Your task to perform on an android device: choose inbox layout in the gmail app Image 0: 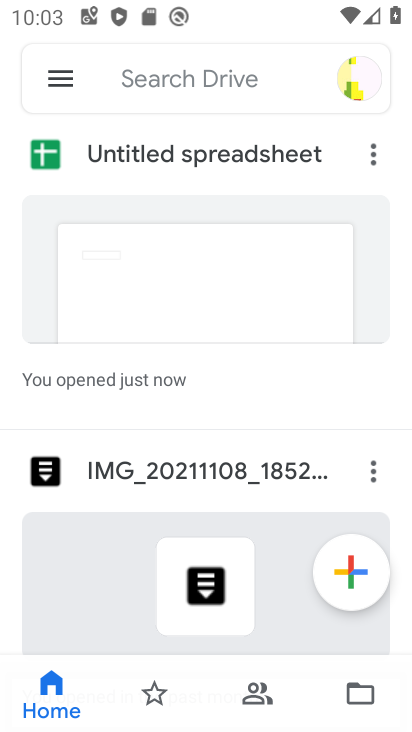
Step 0: click (50, 72)
Your task to perform on an android device: choose inbox layout in the gmail app Image 1: 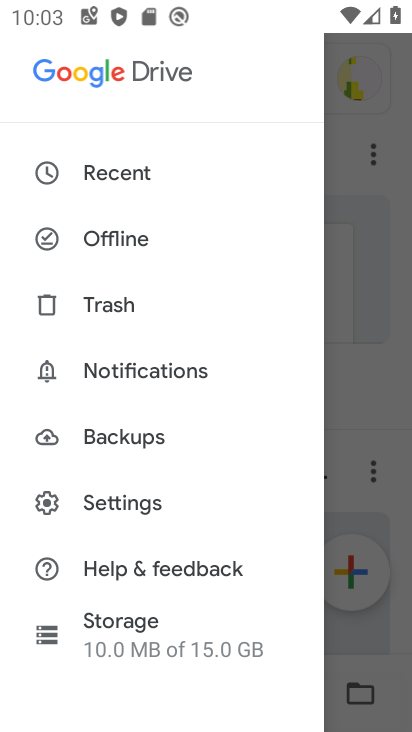
Step 1: drag from (167, 632) to (189, 251)
Your task to perform on an android device: choose inbox layout in the gmail app Image 2: 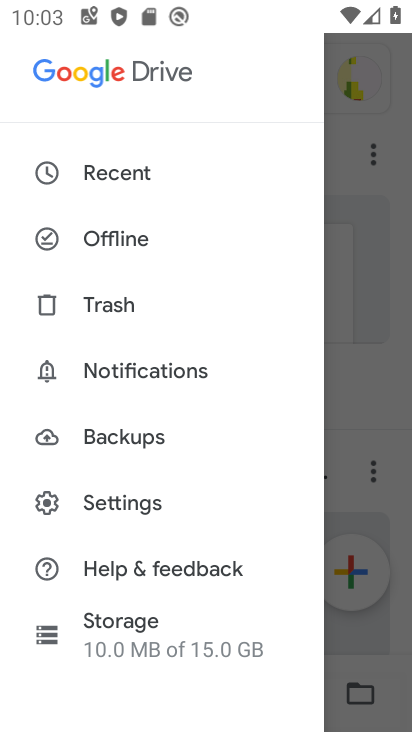
Step 2: drag from (195, 575) to (208, 267)
Your task to perform on an android device: choose inbox layout in the gmail app Image 3: 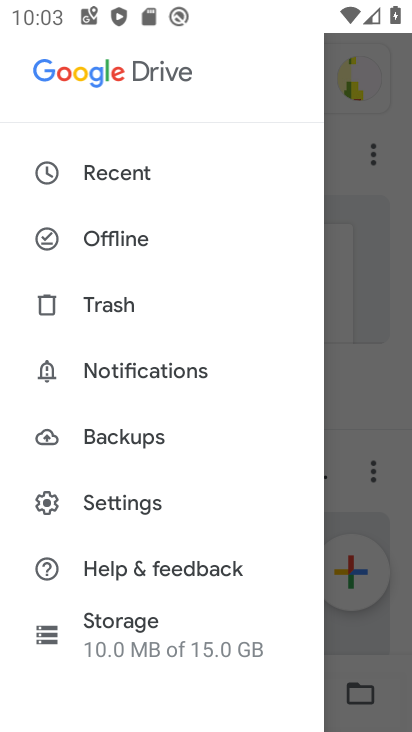
Step 3: click (368, 311)
Your task to perform on an android device: choose inbox layout in the gmail app Image 4: 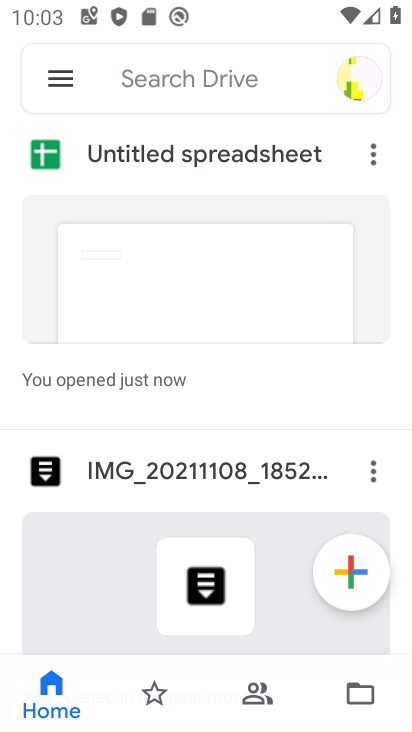
Step 4: press home button
Your task to perform on an android device: choose inbox layout in the gmail app Image 5: 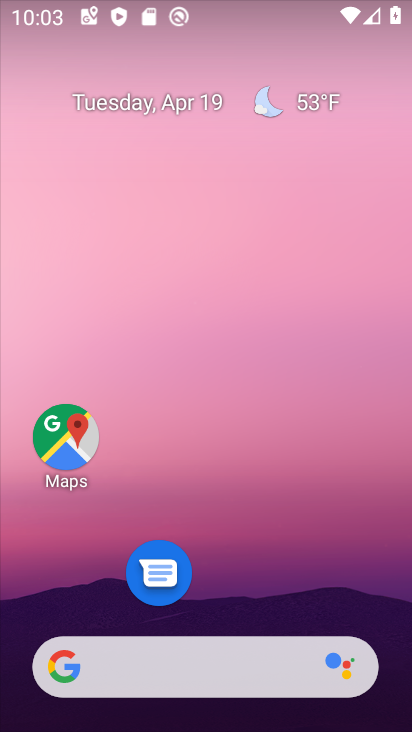
Step 5: drag from (213, 611) to (224, 116)
Your task to perform on an android device: choose inbox layout in the gmail app Image 6: 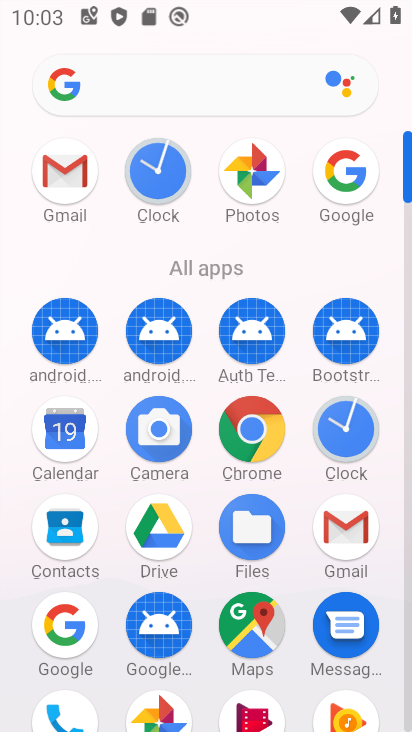
Step 6: click (351, 542)
Your task to perform on an android device: choose inbox layout in the gmail app Image 7: 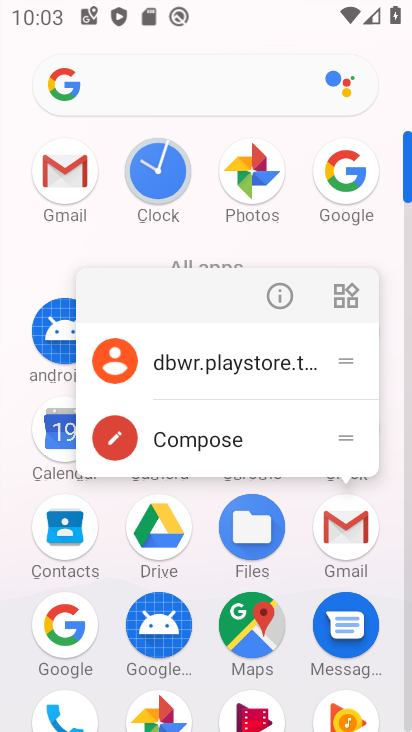
Step 7: click (341, 526)
Your task to perform on an android device: choose inbox layout in the gmail app Image 8: 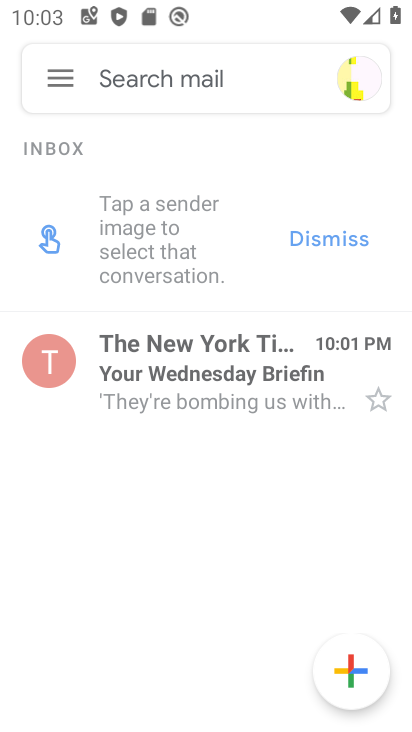
Step 8: click (57, 75)
Your task to perform on an android device: choose inbox layout in the gmail app Image 9: 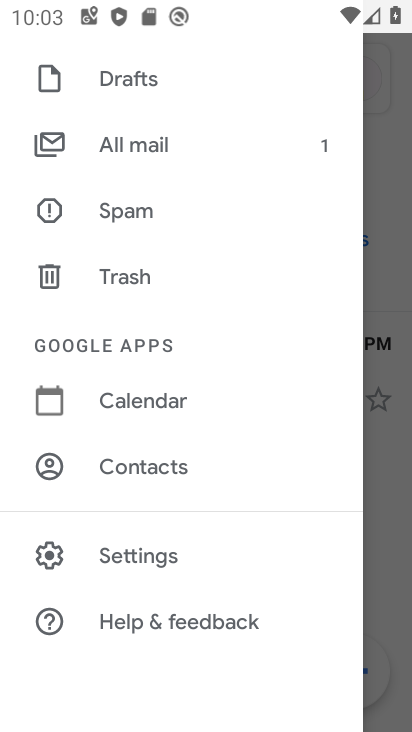
Step 9: click (161, 557)
Your task to perform on an android device: choose inbox layout in the gmail app Image 10: 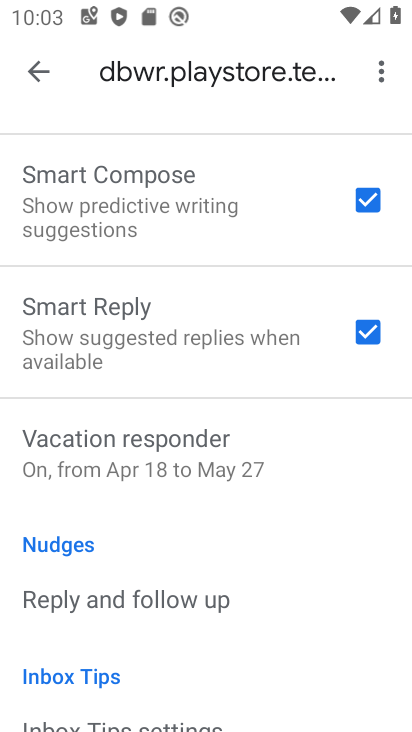
Step 10: drag from (213, 353) to (241, 647)
Your task to perform on an android device: choose inbox layout in the gmail app Image 11: 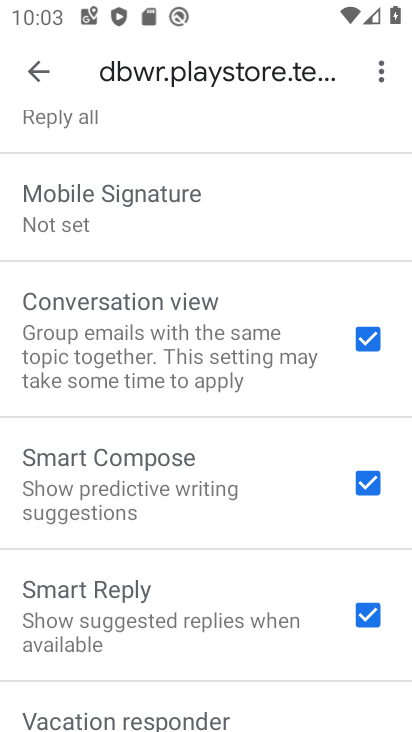
Step 11: drag from (214, 187) to (214, 648)
Your task to perform on an android device: choose inbox layout in the gmail app Image 12: 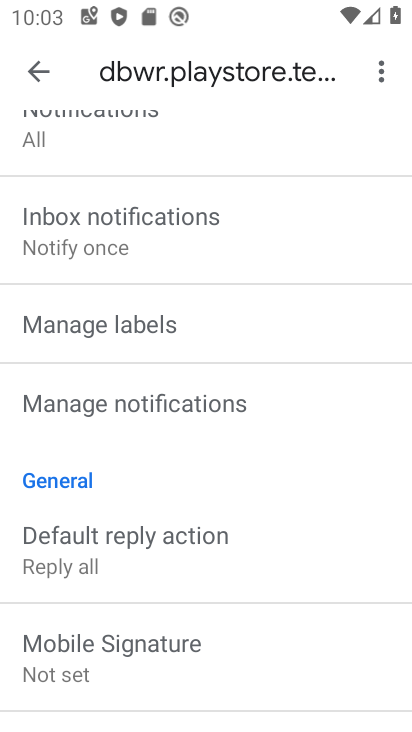
Step 12: drag from (230, 276) to (236, 560)
Your task to perform on an android device: choose inbox layout in the gmail app Image 13: 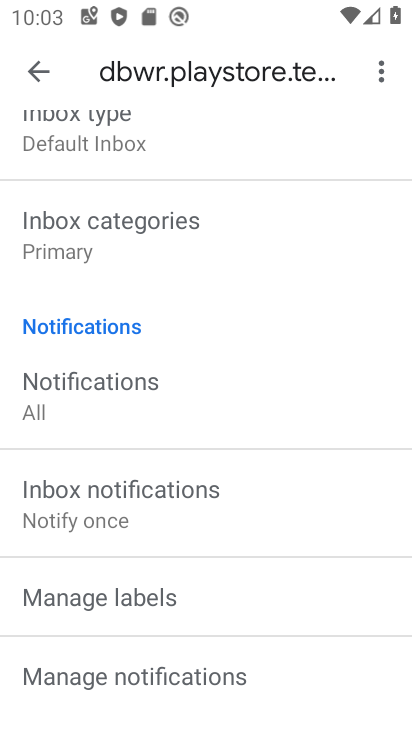
Step 13: drag from (196, 243) to (196, 467)
Your task to perform on an android device: choose inbox layout in the gmail app Image 14: 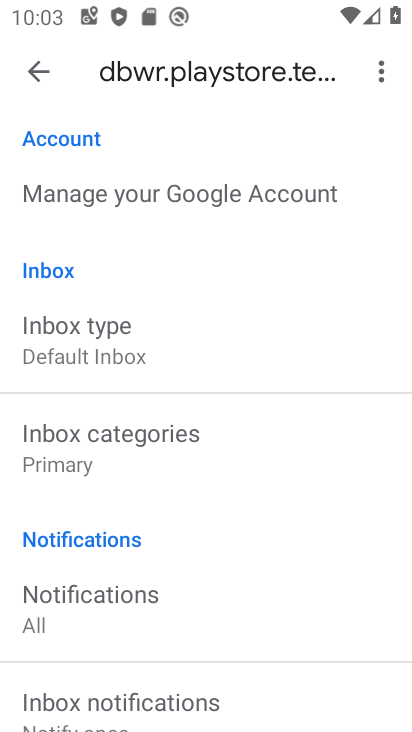
Step 14: click (95, 363)
Your task to perform on an android device: choose inbox layout in the gmail app Image 15: 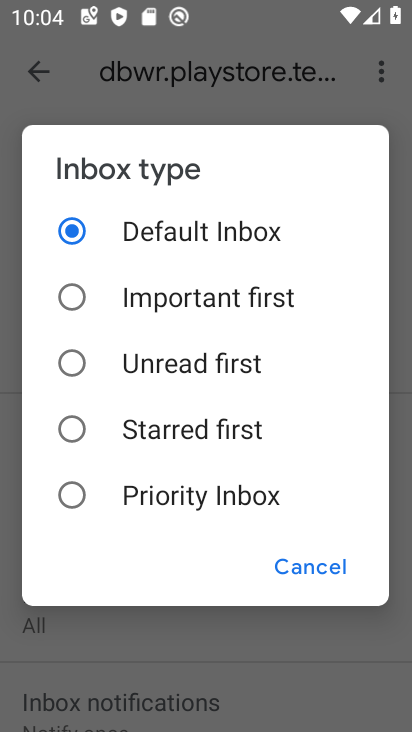
Step 15: click (155, 487)
Your task to perform on an android device: choose inbox layout in the gmail app Image 16: 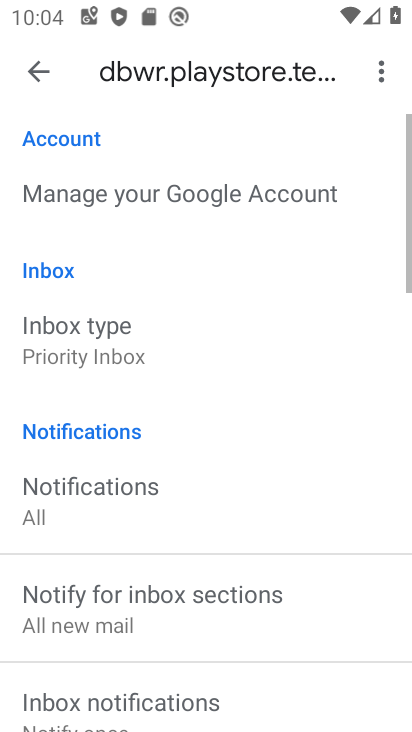
Step 16: task complete